Your task to perform on an android device: check out phone information Image 0: 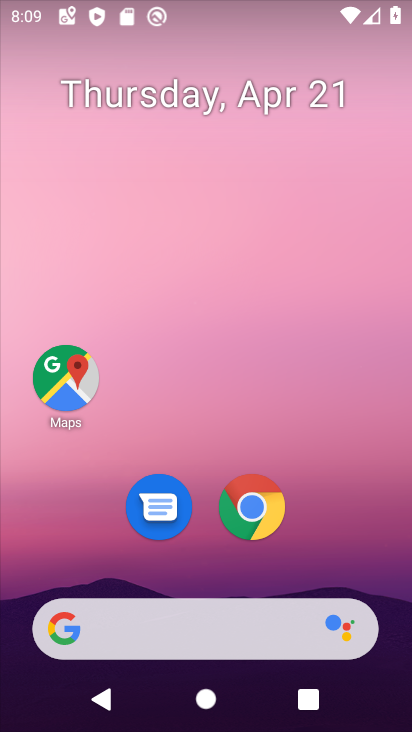
Step 0: drag from (362, 483) to (362, 99)
Your task to perform on an android device: check out phone information Image 1: 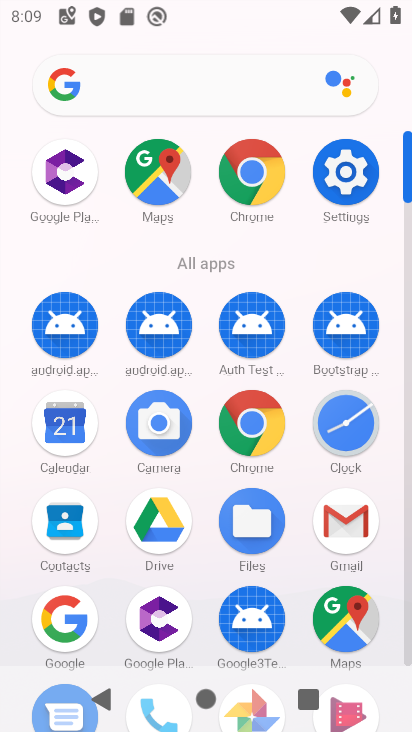
Step 1: drag from (301, 554) to (285, 250)
Your task to perform on an android device: check out phone information Image 2: 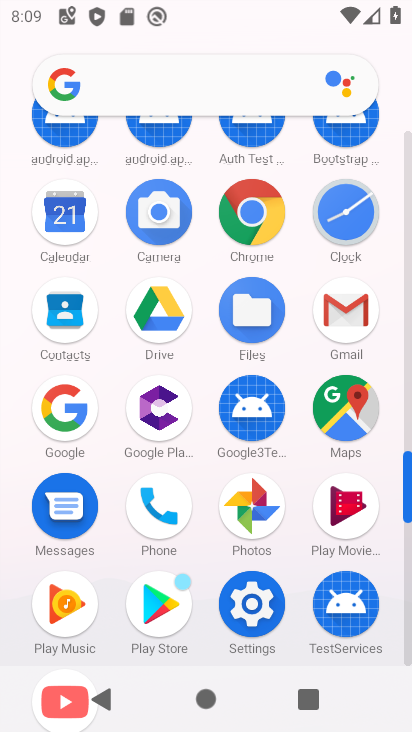
Step 2: click (245, 602)
Your task to perform on an android device: check out phone information Image 3: 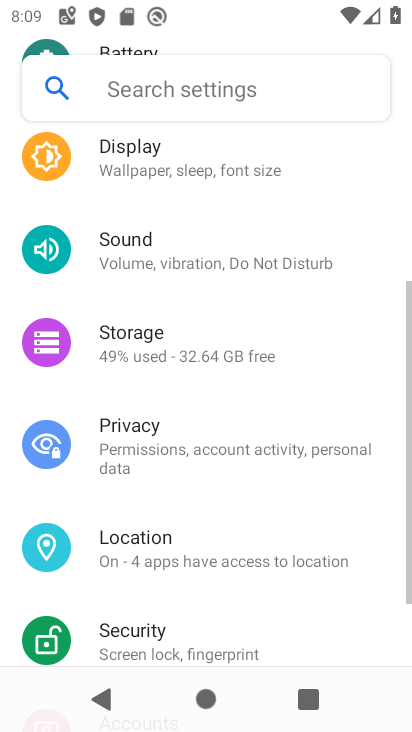
Step 3: drag from (245, 602) to (281, 228)
Your task to perform on an android device: check out phone information Image 4: 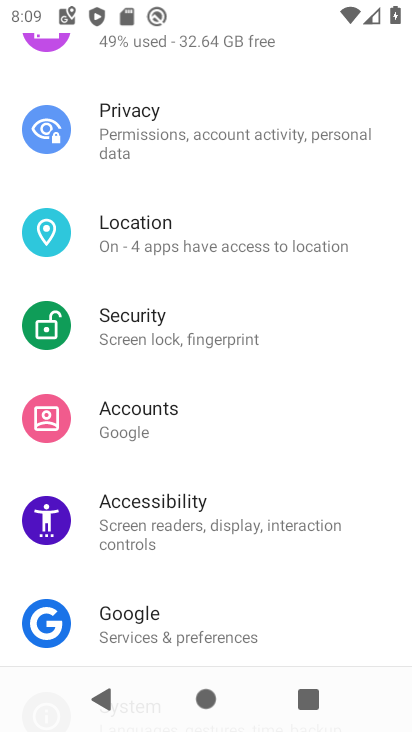
Step 4: drag from (321, 591) to (326, 204)
Your task to perform on an android device: check out phone information Image 5: 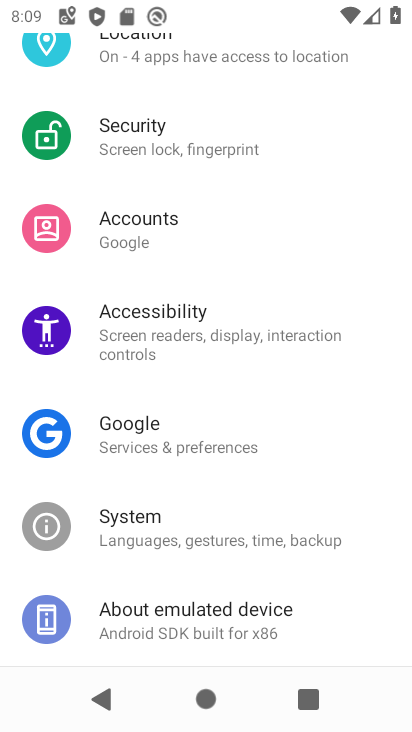
Step 5: click (242, 629)
Your task to perform on an android device: check out phone information Image 6: 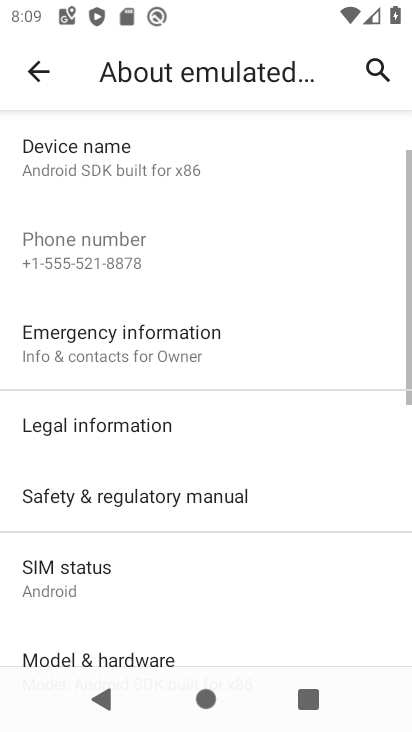
Step 6: task complete